Your task to perform on an android device: change timer sound Image 0: 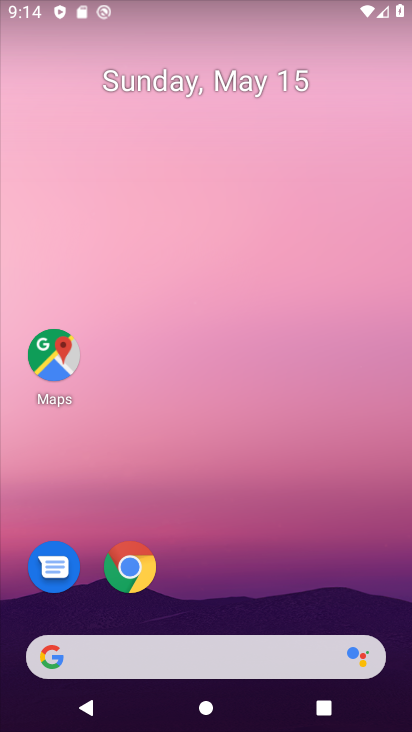
Step 0: drag from (238, 621) to (247, 65)
Your task to perform on an android device: change timer sound Image 1: 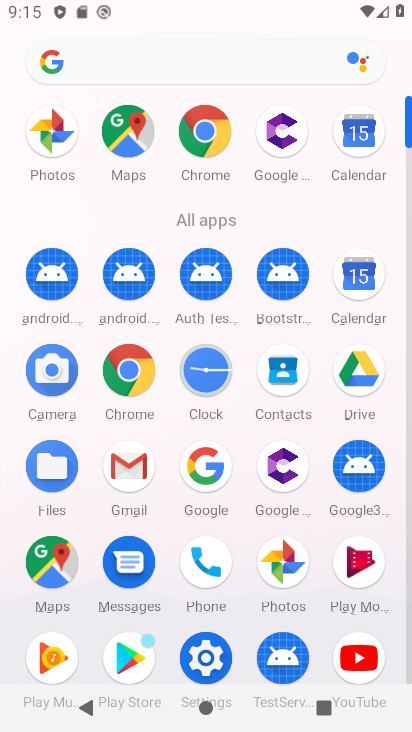
Step 1: click (210, 377)
Your task to perform on an android device: change timer sound Image 2: 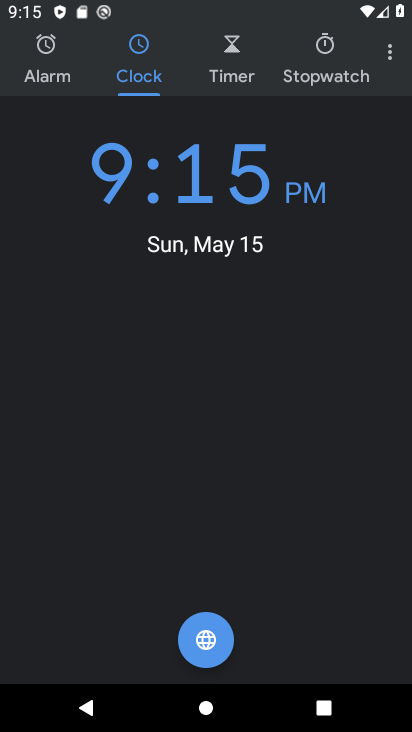
Step 2: click (394, 69)
Your task to perform on an android device: change timer sound Image 3: 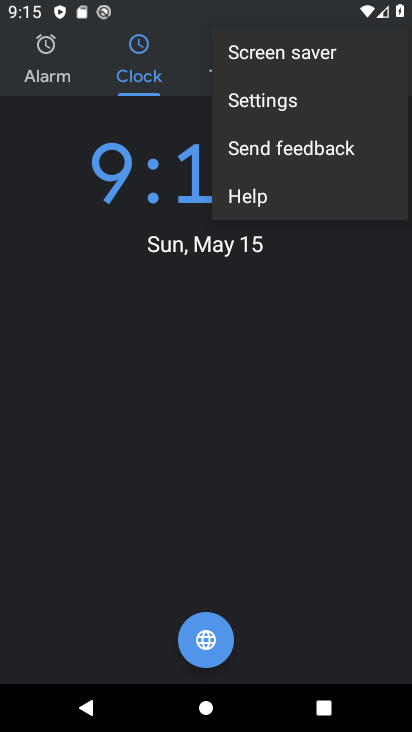
Step 3: click (277, 98)
Your task to perform on an android device: change timer sound Image 4: 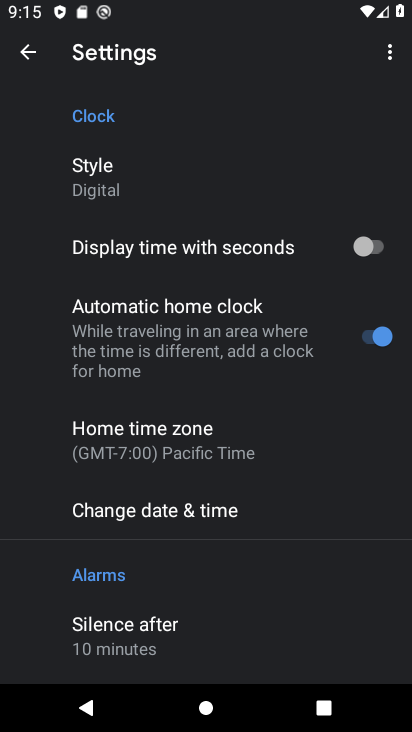
Step 4: drag from (319, 618) to (290, 283)
Your task to perform on an android device: change timer sound Image 5: 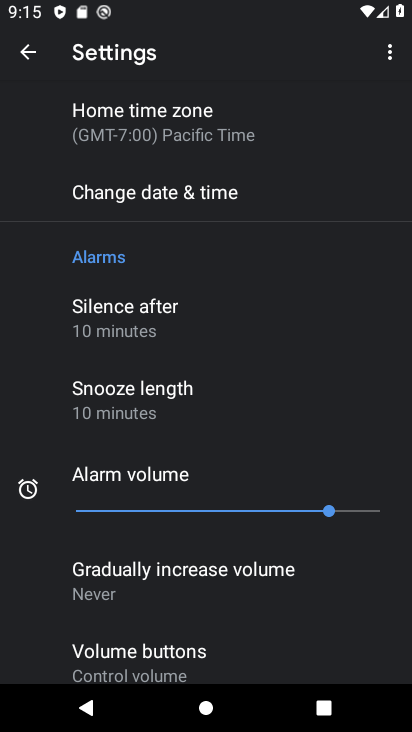
Step 5: drag from (251, 650) to (218, 230)
Your task to perform on an android device: change timer sound Image 6: 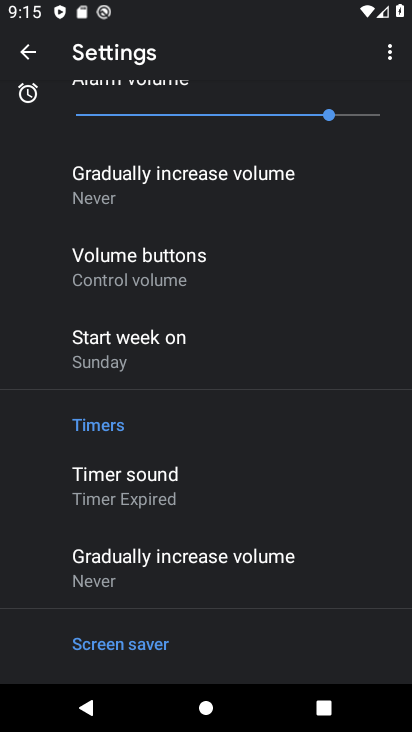
Step 6: click (204, 491)
Your task to perform on an android device: change timer sound Image 7: 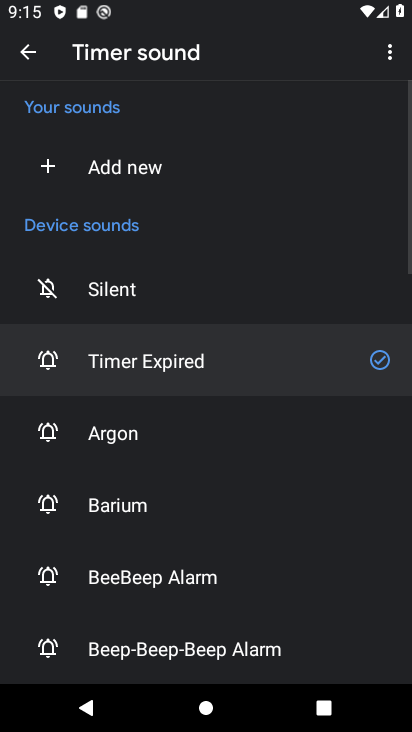
Step 7: click (212, 588)
Your task to perform on an android device: change timer sound Image 8: 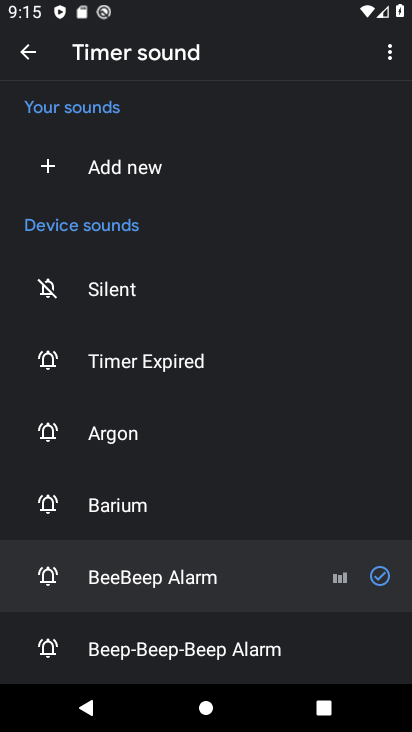
Step 8: task complete